Your task to perform on an android device: Open notification settings Image 0: 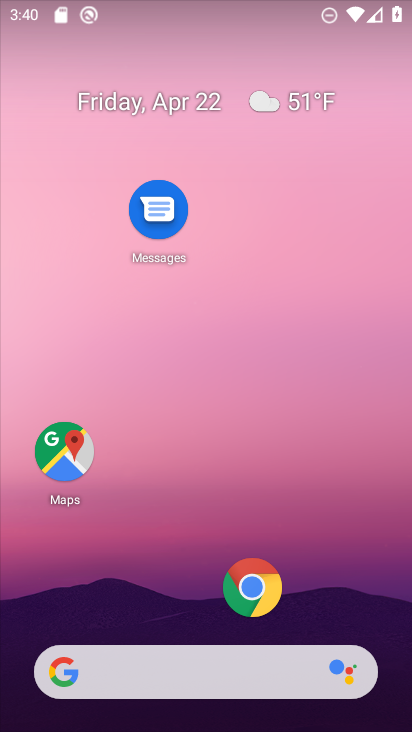
Step 0: drag from (217, 373) to (217, 67)
Your task to perform on an android device: Open notification settings Image 1: 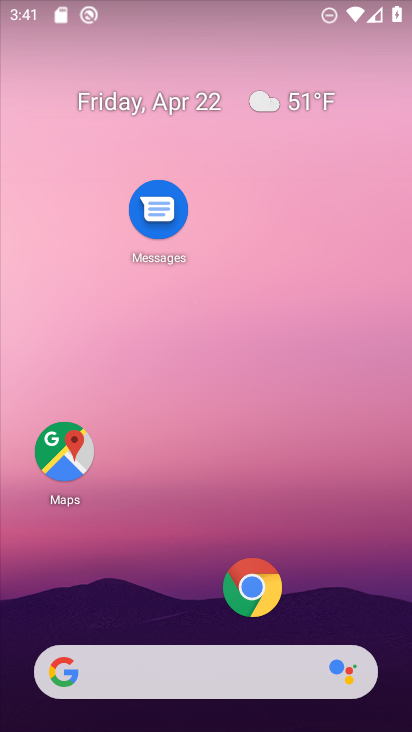
Step 1: drag from (202, 606) to (227, 80)
Your task to perform on an android device: Open notification settings Image 2: 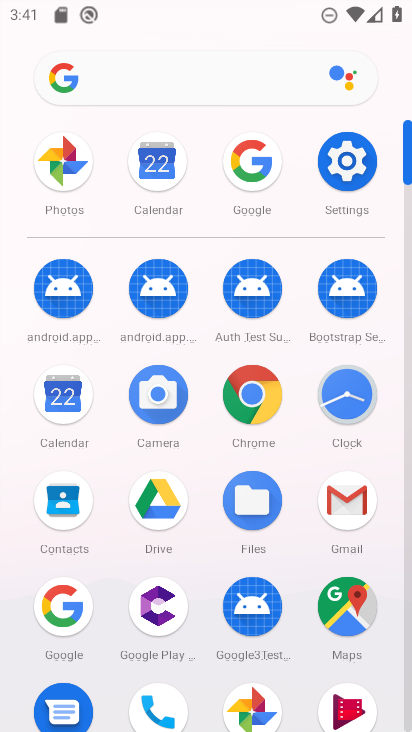
Step 2: click (345, 151)
Your task to perform on an android device: Open notification settings Image 3: 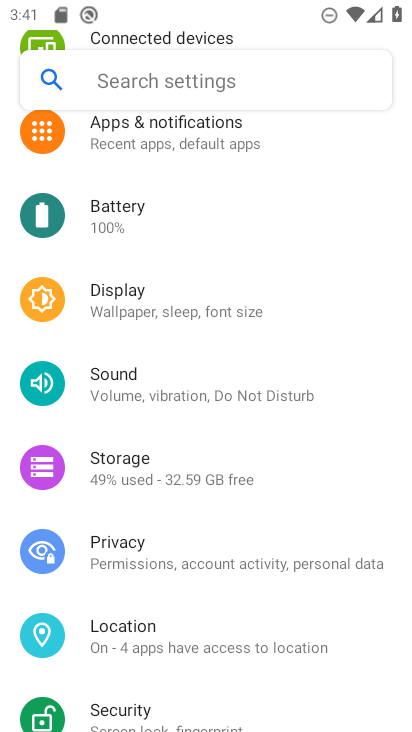
Step 3: click (261, 133)
Your task to perform on an android device: Open notification settings Image 4: 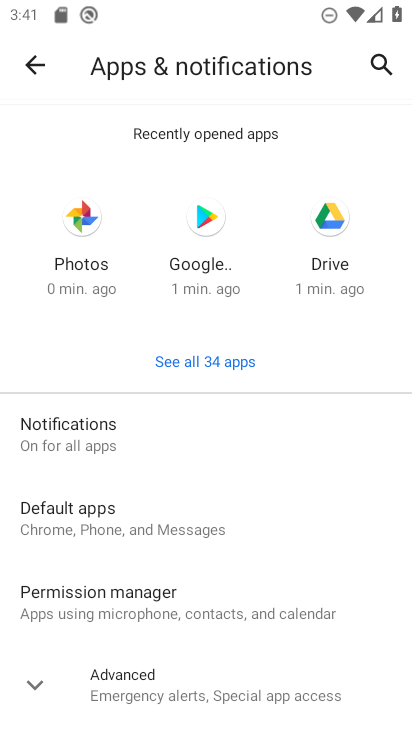
Step 4: click (136, 445)
Your task to perform on an android device: Open notification settings Image 5: 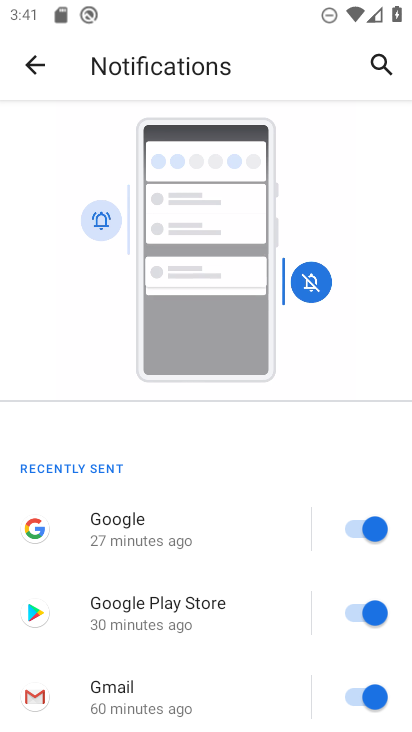
Step 5: task complete